Your task to perform on an android device: Go to Google maps Image 0: 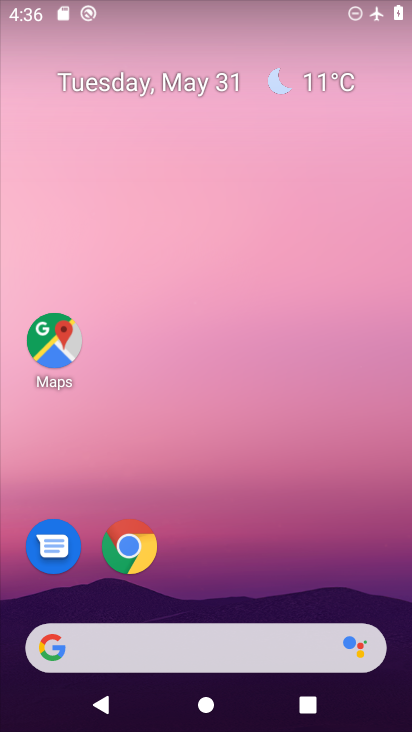
Step 0: click (63, 347)
Your task to perform on an android device: Go to Google maps Image 1: 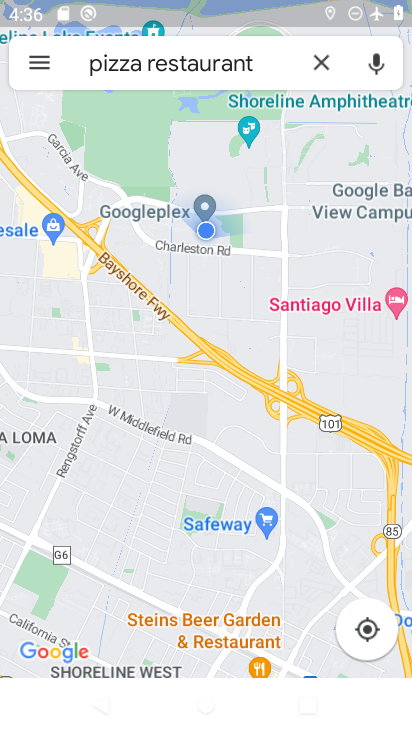
Step 1: task complete